Your task to perform on an android device: Go to Google Image 0: 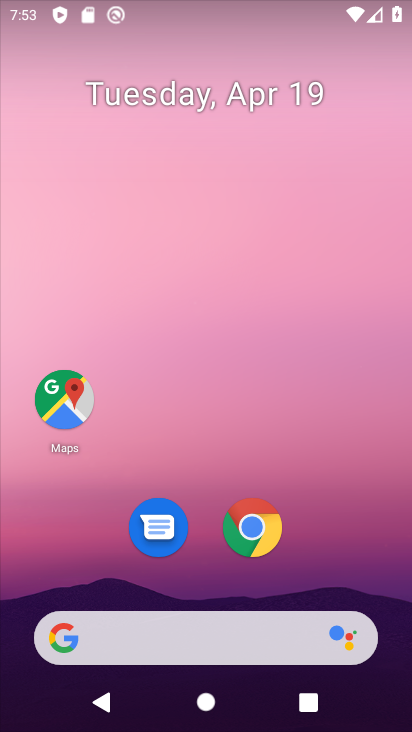
Step 0: drag from (215, 583) to (202, 179)
Your task to perform on an android device: Go to Google Image 1: 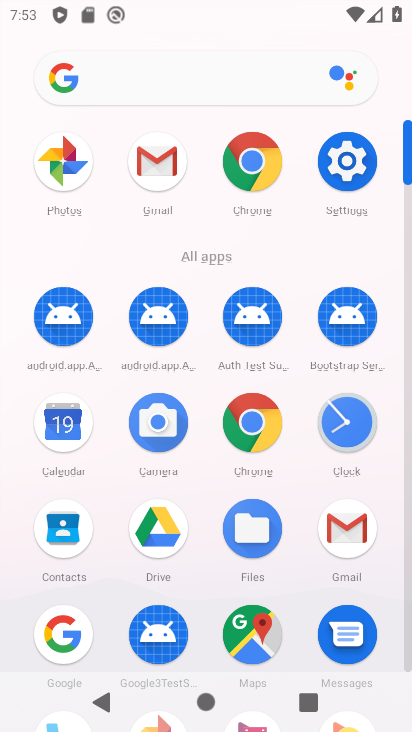
Step 1: click (54, 628)
Your task to perform on an android device: Go to Google Image 2: 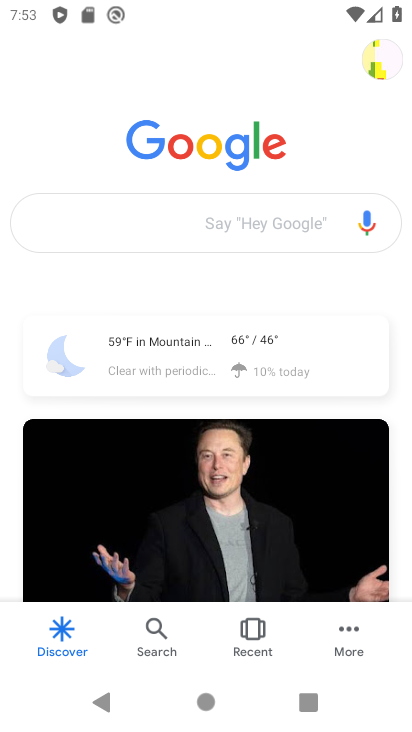
Step 2: task complete